Your task to perform on an android device: turn pop-ups off in chrome Image 0: 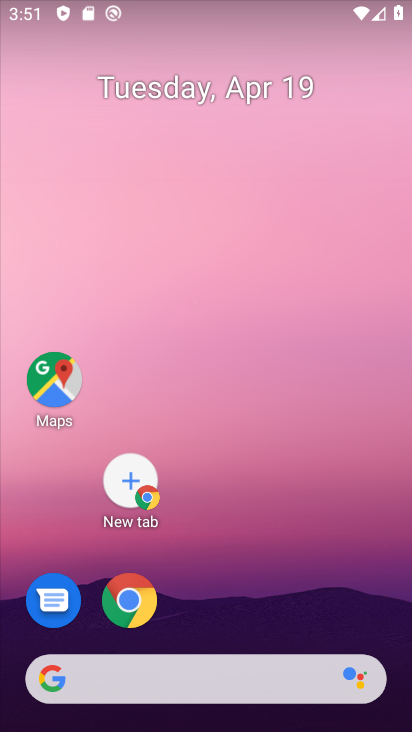
Step 0: click (123, 618)
Your task to perform on an android device: turn pop-ups off in chrome Image 1: 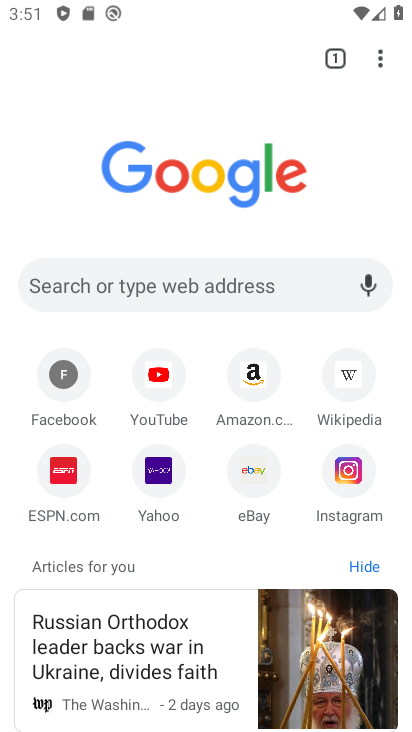
Step 1: click (377, 57)
Your task to perform on an android device: turn pop-ups off in chrome Image 2: 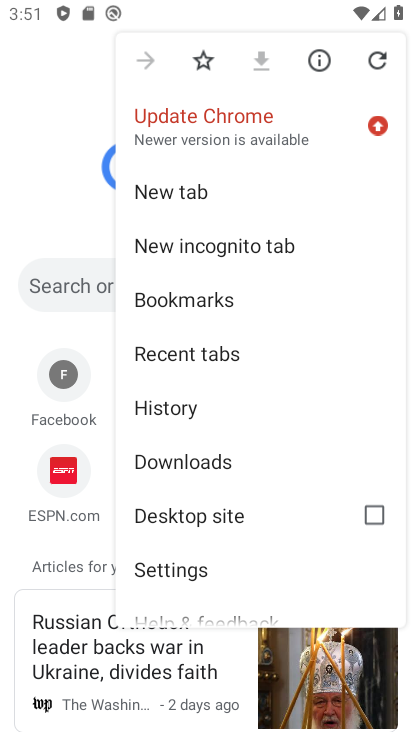
Step 2: click (197, 559)
Your task to perform on an android device: turn pop-ups off in chrome Image 3: 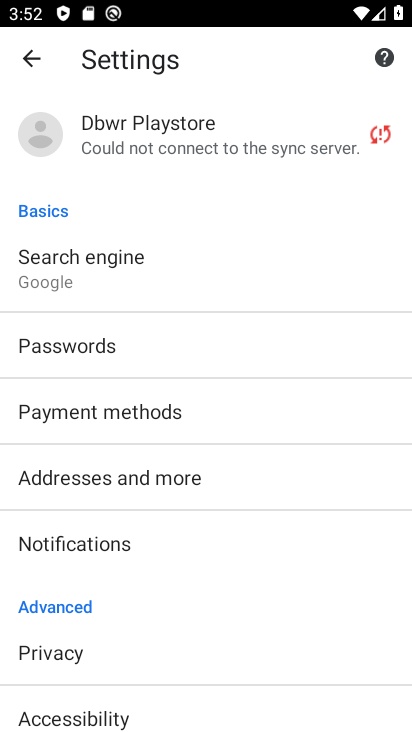
Step 3: drag from (135, 653) to (188, 62)
Your task to perform on an android device: turn pop-ups off in chrome Image 4: 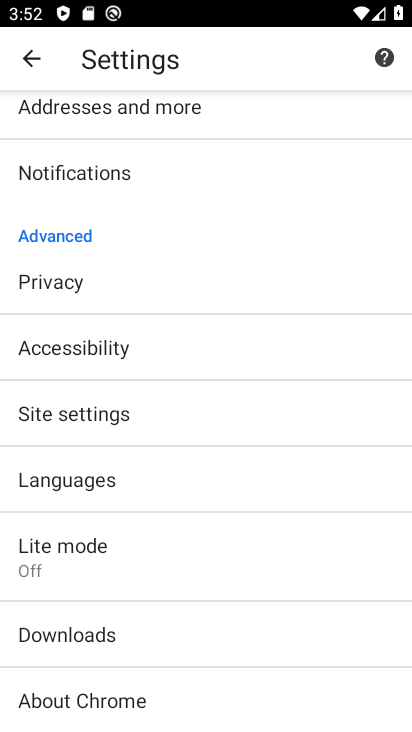
Step 4: click (89, 407)
Your task to perform on an android device: turn pop-ups off in chrome Image 5: 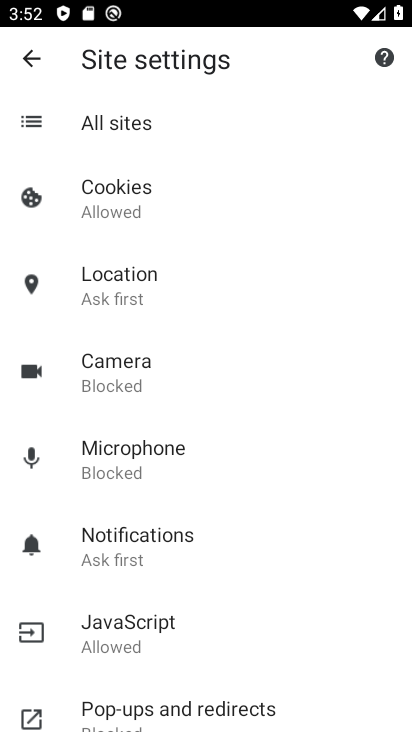
Step 5: click (126, 718)
Your task to perform on an android device: turn pop-ups off in chrome Image 6: 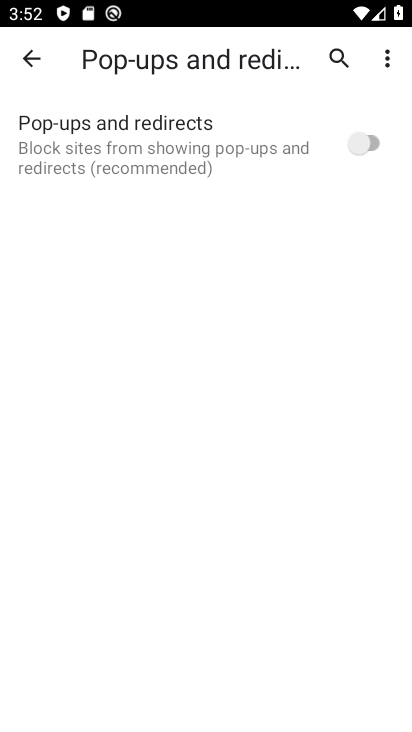
Step 6: task complete